Your task to perform on an android device: Open the calendar app, open the side menu, and click the "Day" option Image 0: 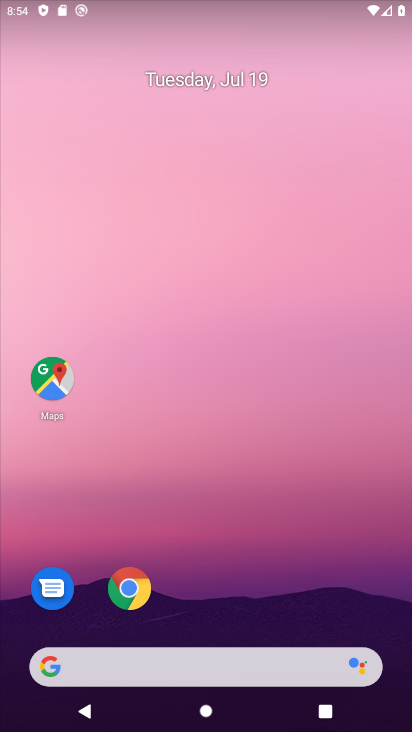
Step 0: drag from (280, 603) to (261, 3)
Your task to perform on an android device: Open the calendar app, open the side menu, and click the "Day" option Image 1: 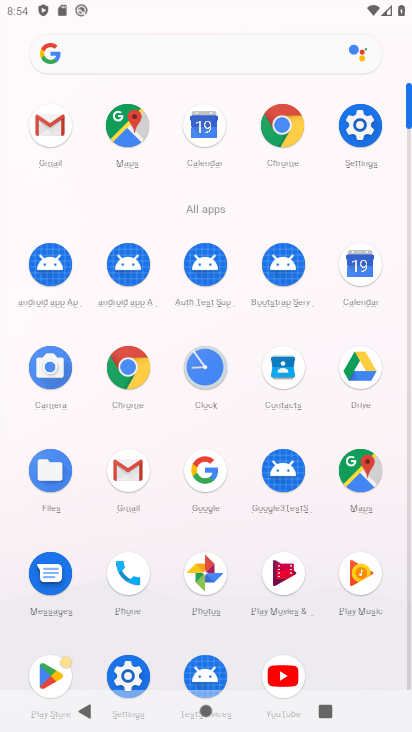
Step 1: click (356, 270)
Your task to perform on an android device: Open the calendar app, open the side menu, and click the "Day" option Image 2: 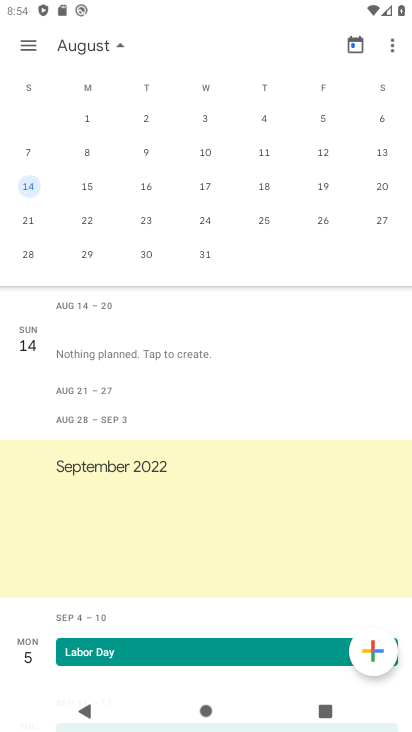
Step 2: click (33, 54)
Your task to perform on an android device: Open the calendar app, open the side menu, and click the "Day" option Image 3: 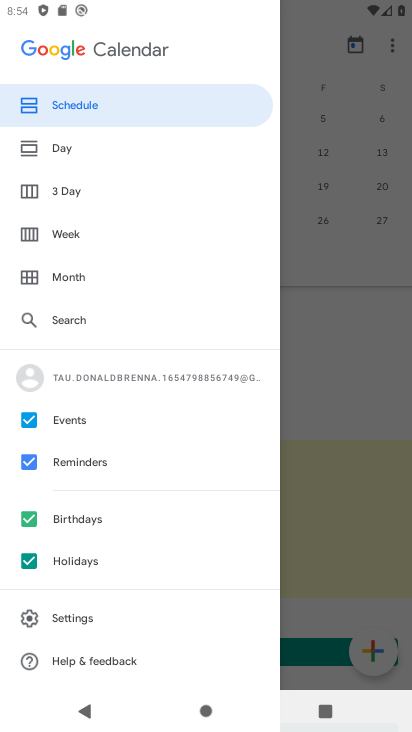
Step 3: click (57, 142)
Your task to perform on an android device: Open the calendar app, open the side menu, and click the "Day" option Image 4: 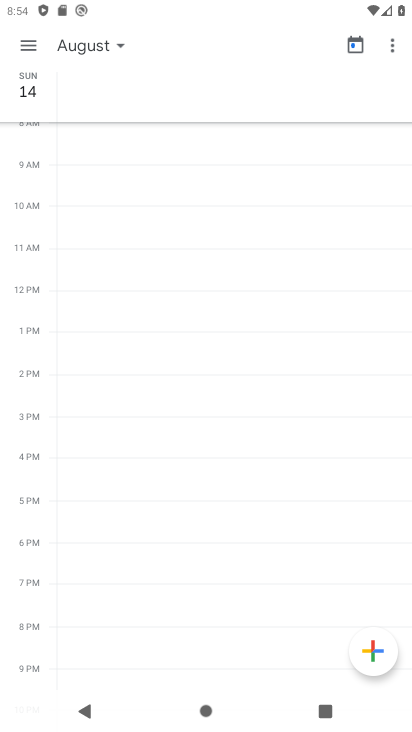
Step 4: task complete